Your task to perform on an android device: When is my next meeting? Image 0: 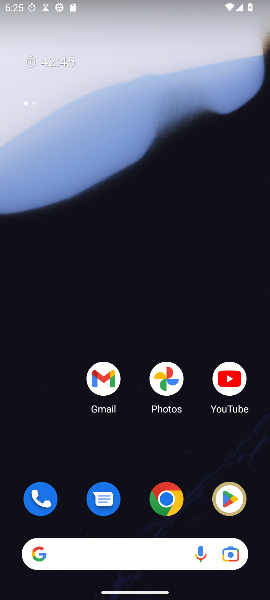
Step 0: drag from (112, 554) to (243, 23)
Your task to perform on an android device: When is my next meeting? Image 1: 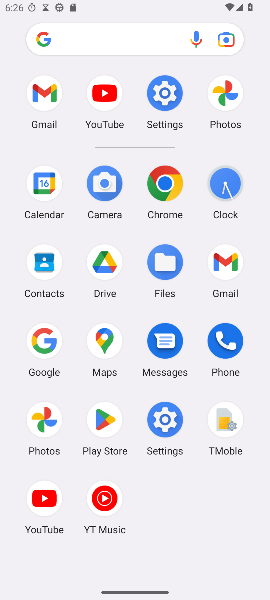
Step 1: click (32, 190)
Your task to perform on an android device: When is my next meeting? Image 2: 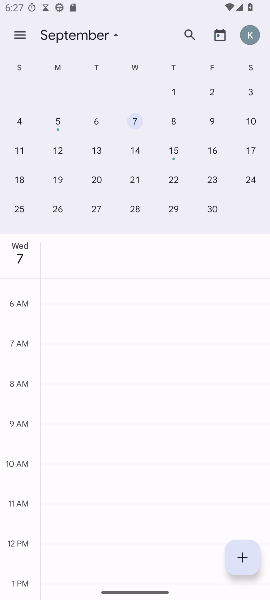
Step 2: task complete